Your task to perform on an android device: Go to Yahoo.com Image 0: 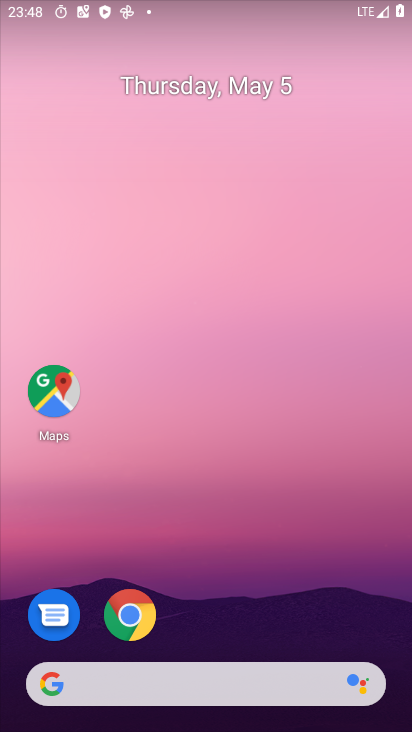
Step 0: drag from (220, 593) to (233, 97)
Your task to perform on an android device: Go to Yahoo.com Image 1: 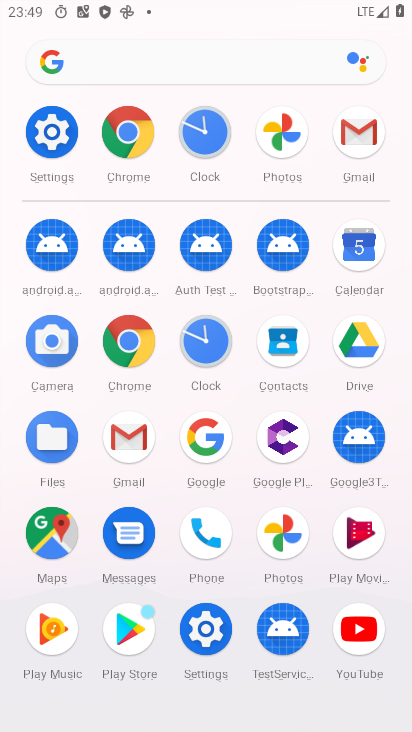
Step 1: click (203, 443)
Your task to perform on an android device: Go to Yahoo.com Image 2: 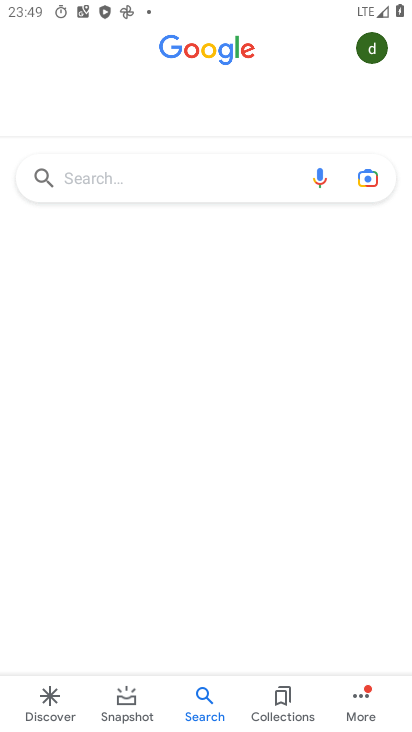
Step 2: click (141, 173)
Your task to perform on an android device: Go to Yahoo.com Image 3: 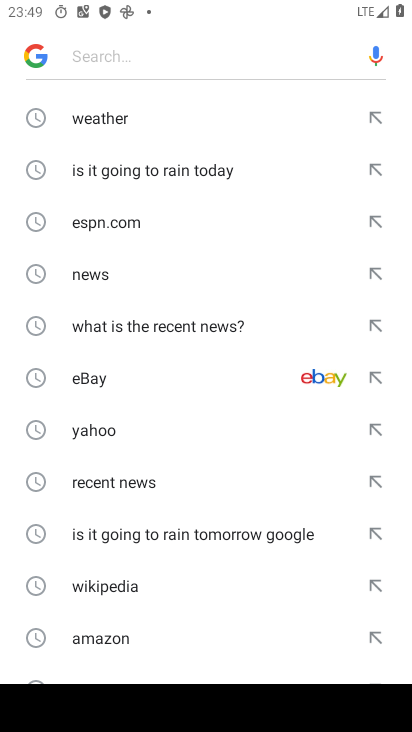
Step 3: type "yahoo.com"
Your task to perform on an android device: Go to Yahoo.com Image 4: 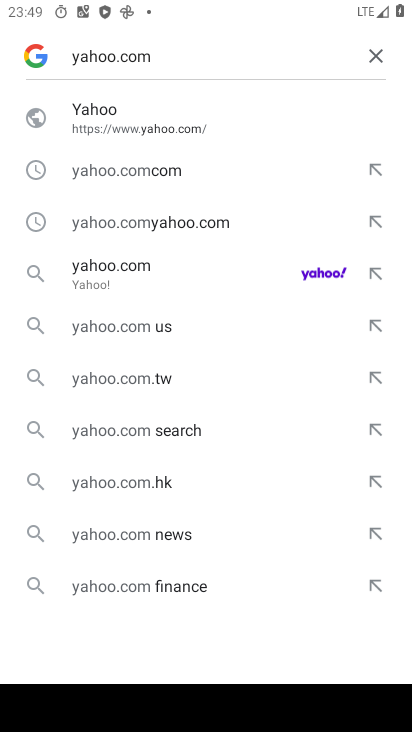
Step 4: click (145, 131)
Your task to perform on an android device: Go to Yahoo.com Image 5: 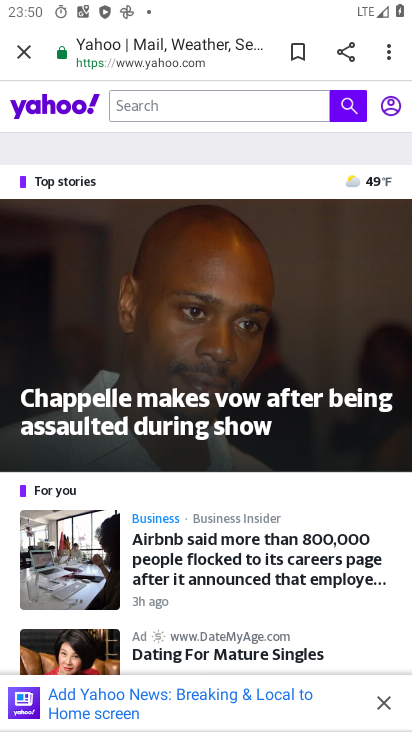
Step 5: task complete